Your task to perform on an android device: Go to network settings Image 0: 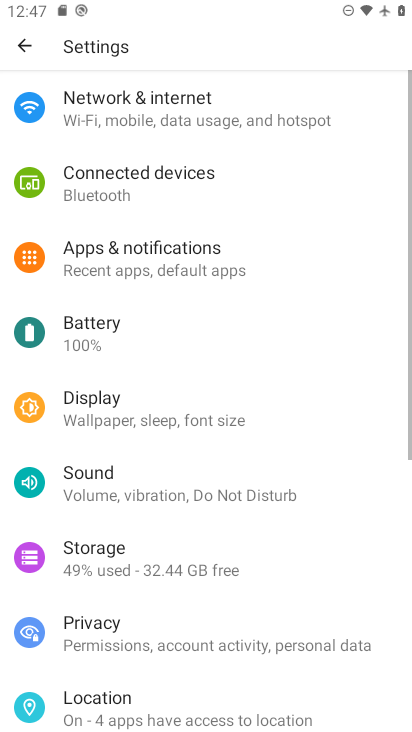
Step 0: press back button
Your task to perform on an android device: Go to network settings Image 1: 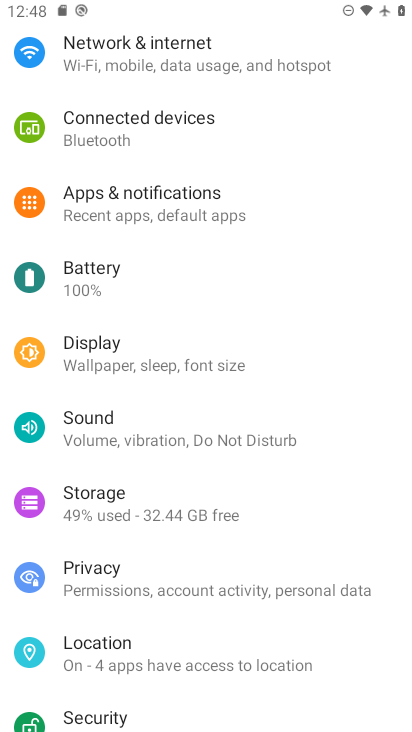
Step 1: drag from (131, 147) to (144, 532)
Your task to perform on an android device: Go to network settings Image 2: 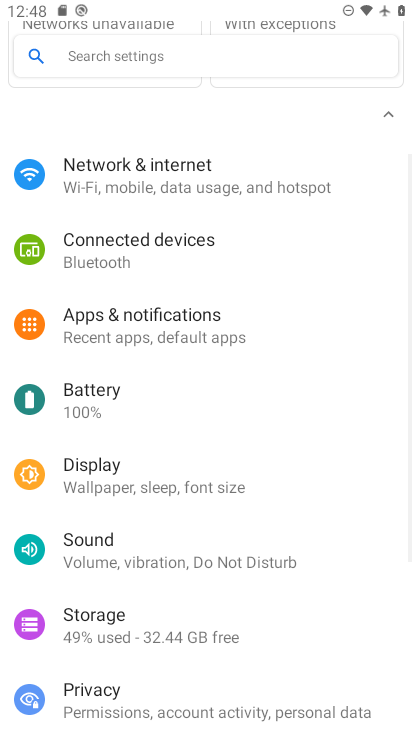
Step 2: click (160, 66)
Your task to perform on an android device: Go to network settings Image 3: 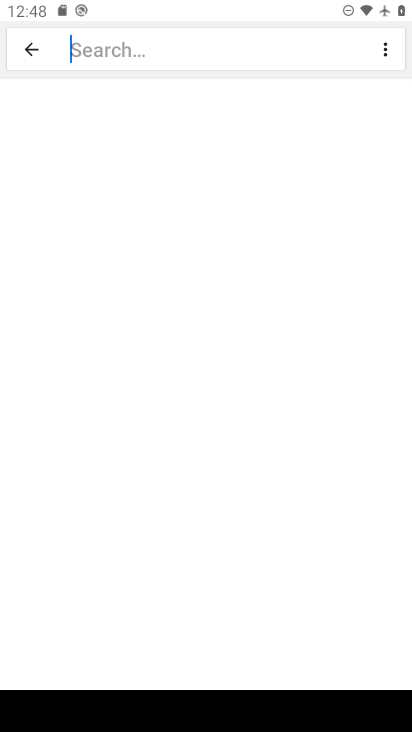
Step 3: click (31, 45)
Your task to perform on an android device: Go to network settings Image 4: 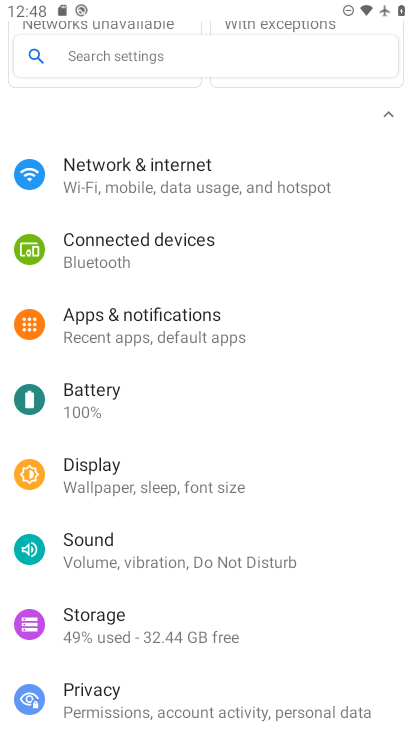
Step 4: click (144, 161)
Your task to perform on an android device: Go to network settings Image 5: 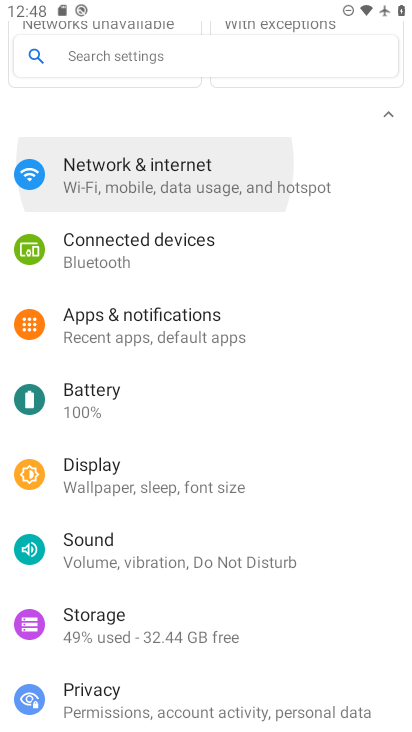
Step 5: click (148, 165)
Your task to perform on an android device: Go to network settings Image 6: 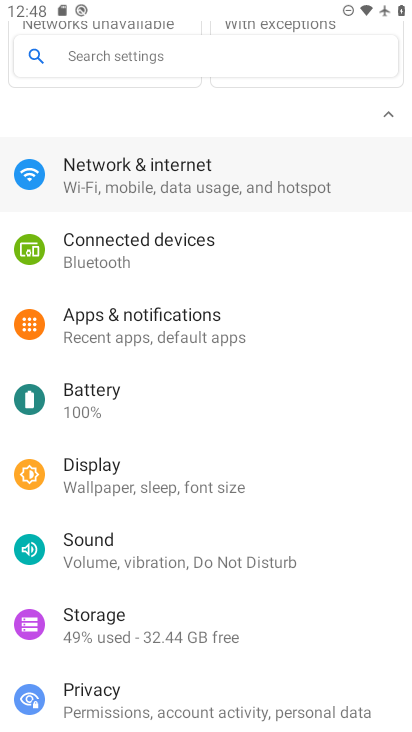
Step 6: click (149, 165)
Your task to perform on an android device: Go to network settings Image 7: 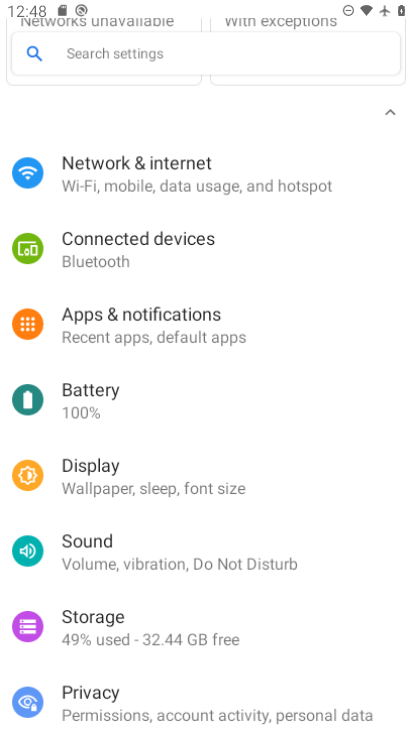
Step 7: click (149, 165)
Your task to perform on an android device: Go to network settings Image 8: 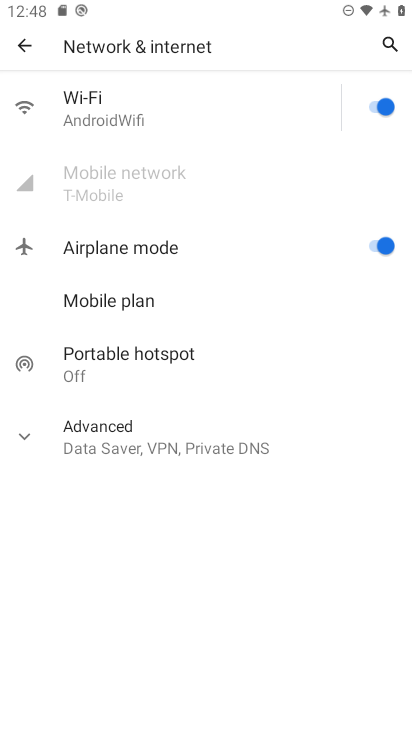
Step 8: click (149, 165)
Your task to perform on an android device: Go to network settings Image 9: 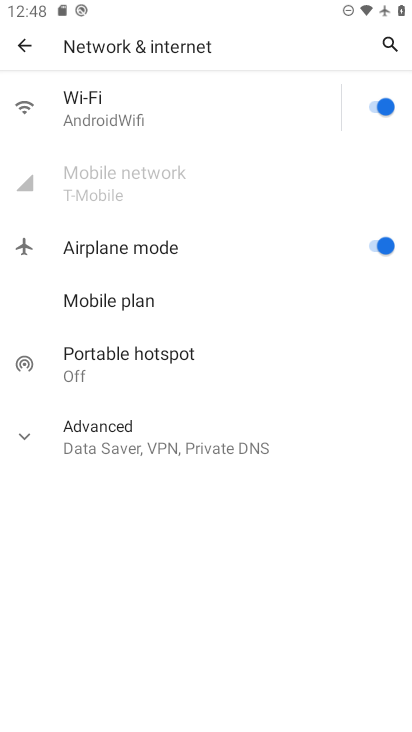
Step 9: task complete